Your task to perform on an android device: Check the weather Image 0: 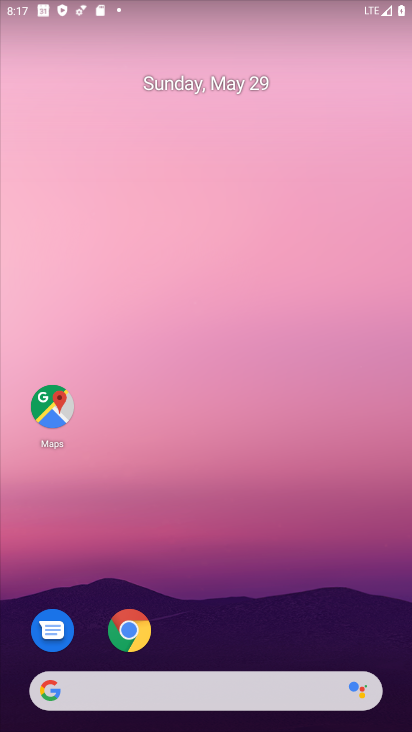
Step 0: click (268, 684)
Your task to perform on an android device: Check the weather Image 1: 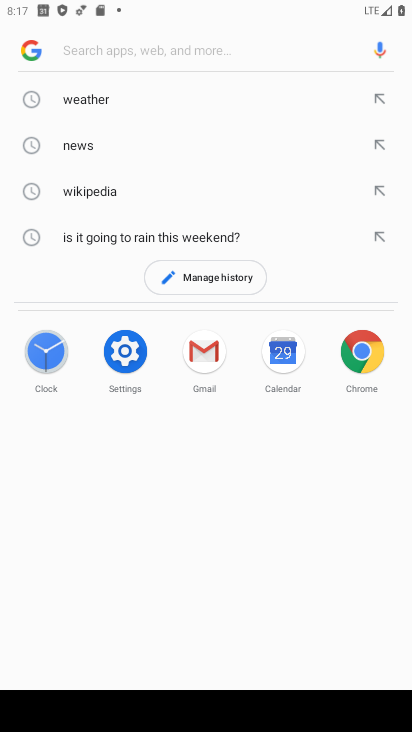
Step 1: click (73, 104)
Your task to perform on an android device: Check the weather Image 2: 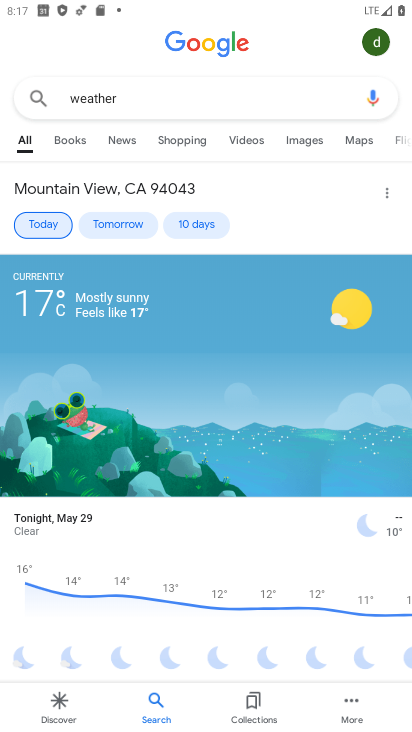
Step 2: task complete